Your task to perform on an android device: turn pop-ups off in chrome Image 0: 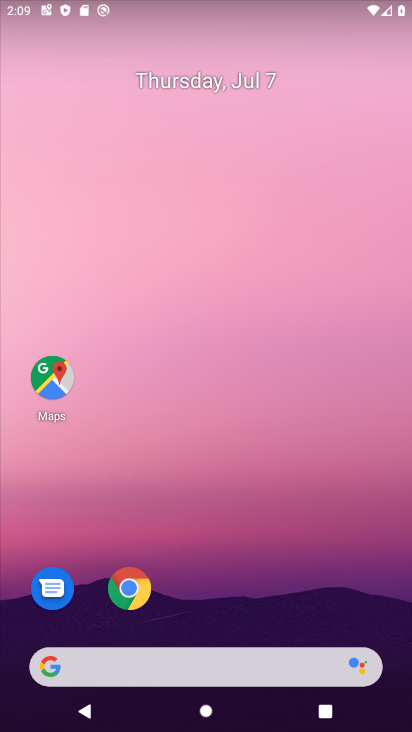
Step 0: click (141, 596)
Your task to perform on an android device: turn pop-ups off in chrome Image 1: 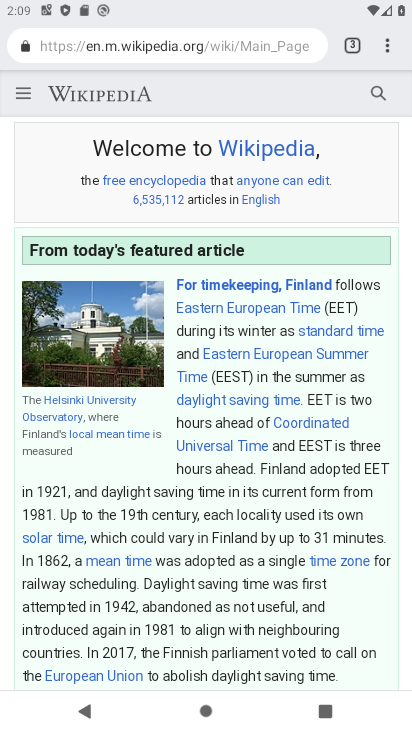
Step 1: drag from (392, 44) to (244, 501)
Your task to perform on an android device: turn pop-ups off in chrome Image 2: 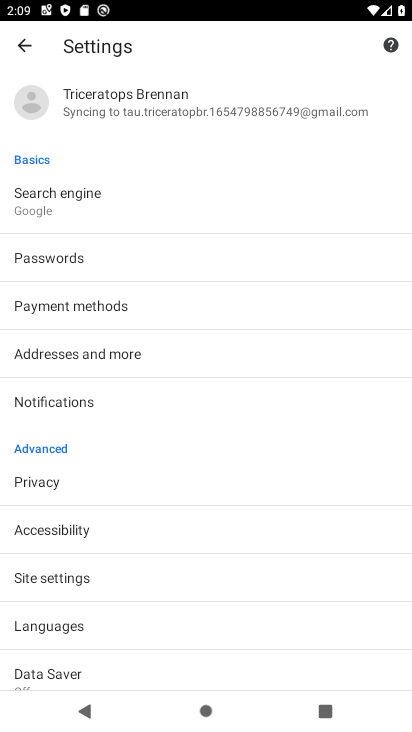
Step 2: click (92, 577)
Your task to perform on an android device: turn pop-ups off in chrome Image 3: 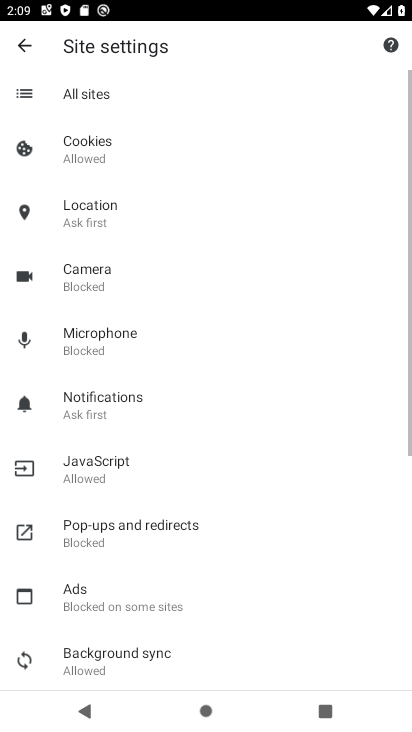
Step 3: click (128, 538)
Your task to perform on an android device: turn pop-ups off in chrome Image 4: 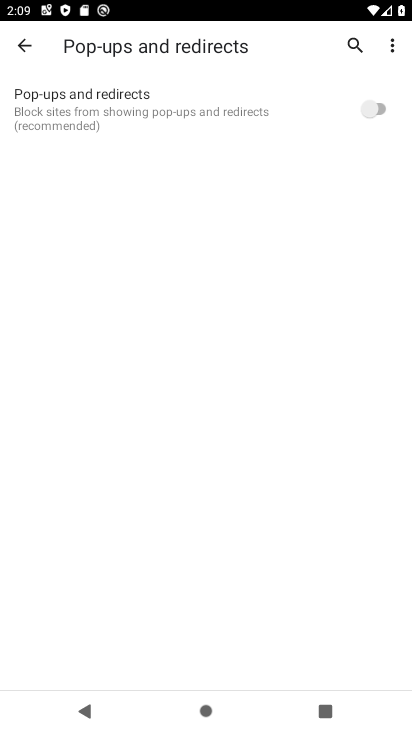
Step 4: task complete